Your task to perform on an android device: turn pop-ups on in chrome Image 0: 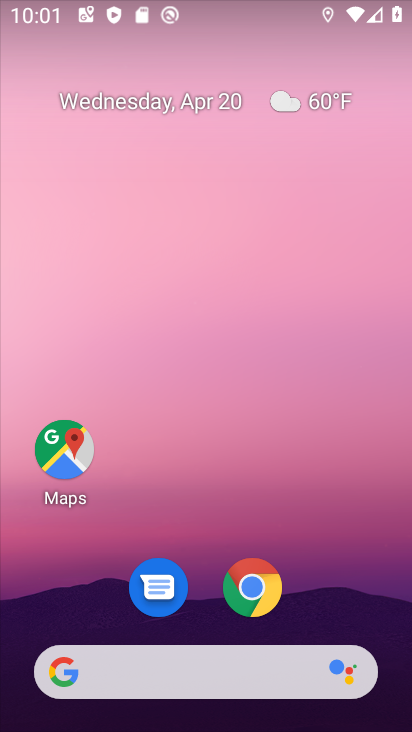
Step 0: click (273, 591)
Your task to perform on an android device: turn pop-ups on in chrome Image 1: 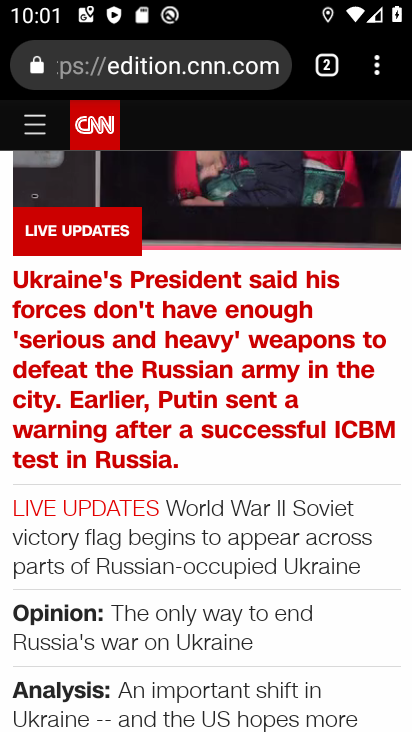
Step 1: click (322, 64)
Your task to perform on an android device: turn pop-ups on in chrome Image 2: 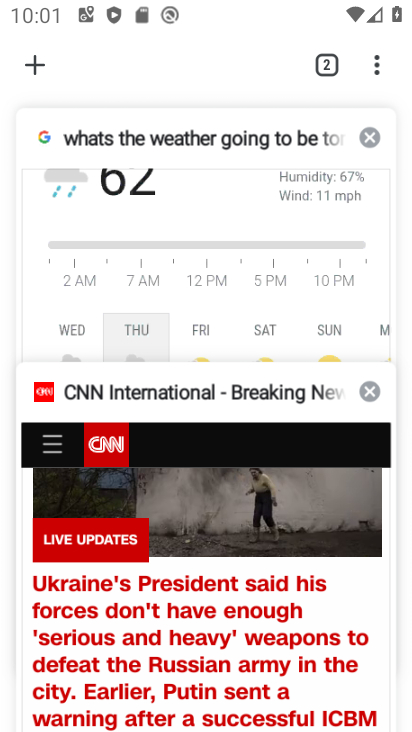
Step 2: click (372, 61)
Your task to perform on an android device: turn pop-ups on in chrome Image 3: 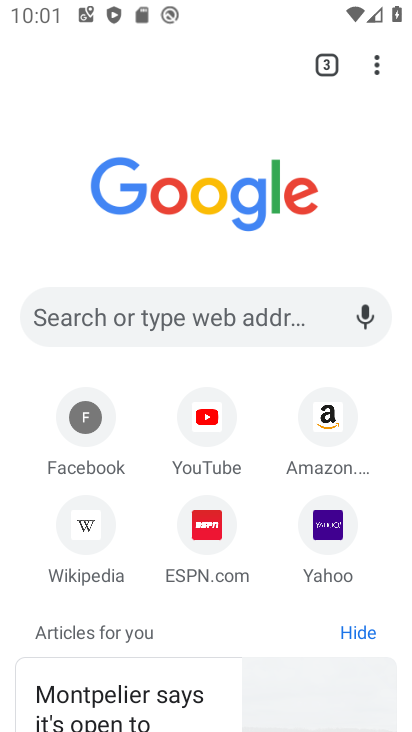
Step 3: drag from (376, 63) to (167, 540)
Your task to perform on an android device: turn pop-ups on in chrome Image 4: 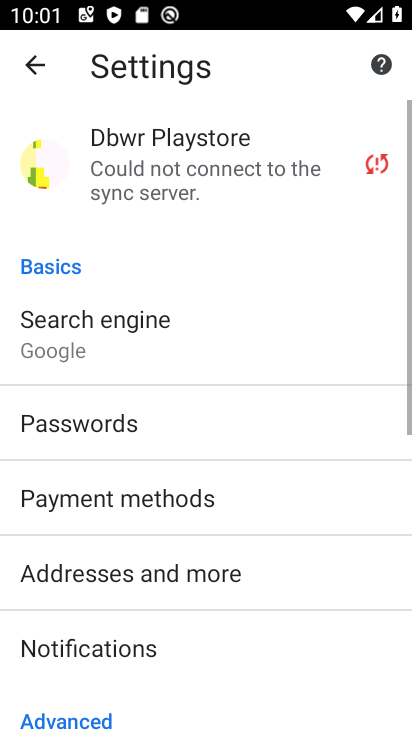
Step 4: drag from (167, 540) to (156, 145)
Your task to perform on an android device: turn pop-ups on in chrome Image 5: 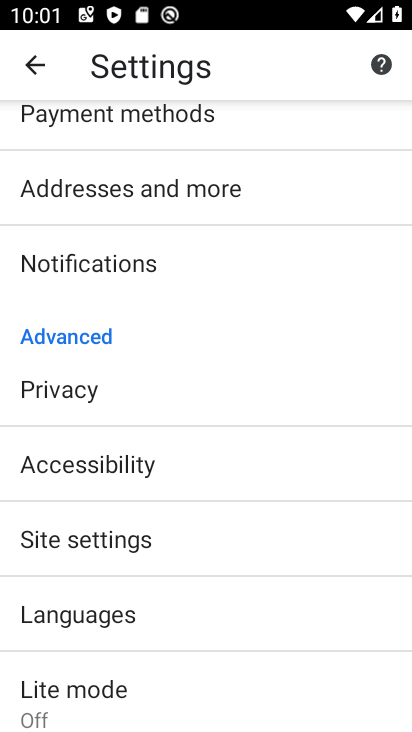
Step 5: click (76, 537)
Your task to perform on an android device: turn pop-ups on in chrome Image 6: 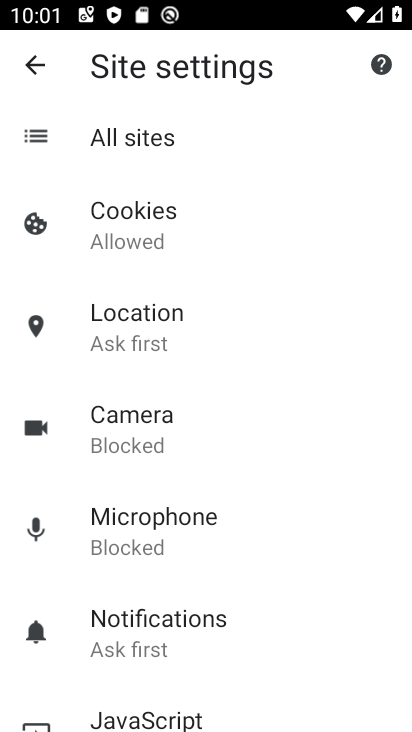
Step 6: drag from (287, 660) to (252, 270)
Your task to perform on an android device: turn pop-ups on in chrome Image 7: 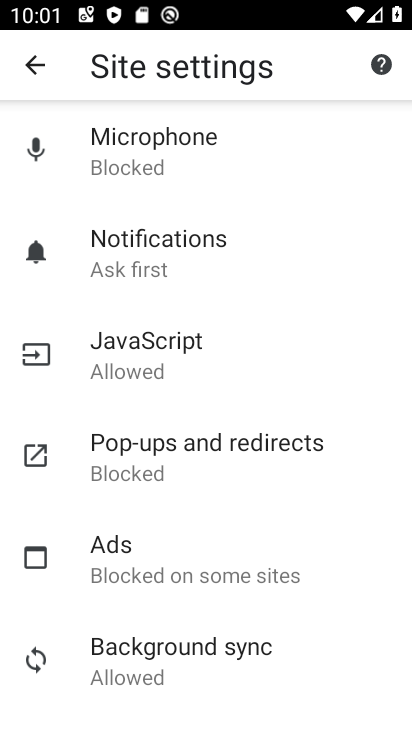
Step 7: click (142, 457)
Your task to perform on an android device: turn pop-ups on in chrome Image 8: 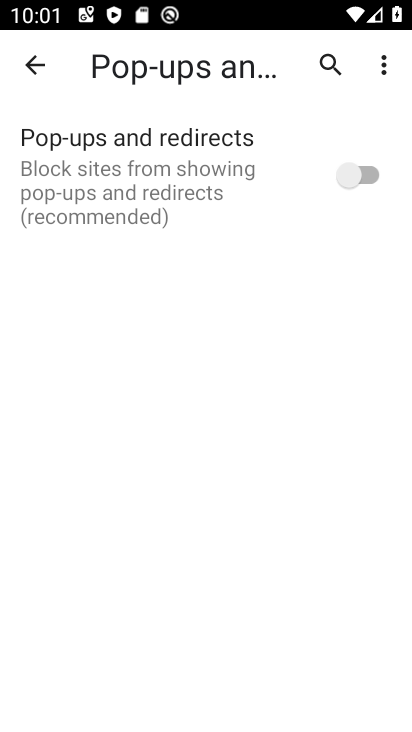
Step 8: click (343, 175)
Your task to perform on an android device: turn pop-ups on in chrome Image 9: 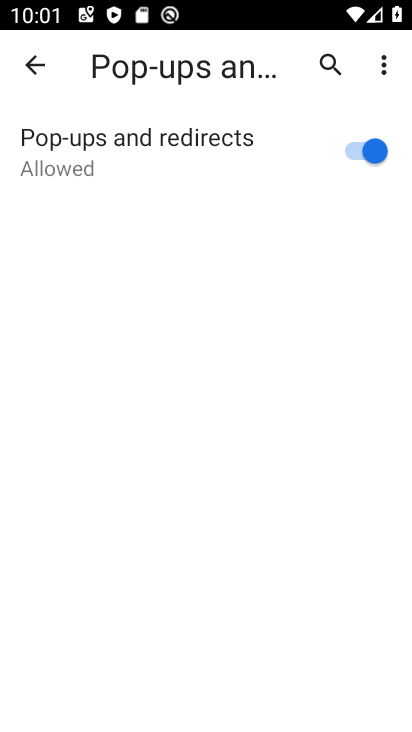
Step 9: task complete